Your task to perform on an android device: Clear all items from cart on costco. Add razer nari to the cart on costco, then select checkout. Image 0: 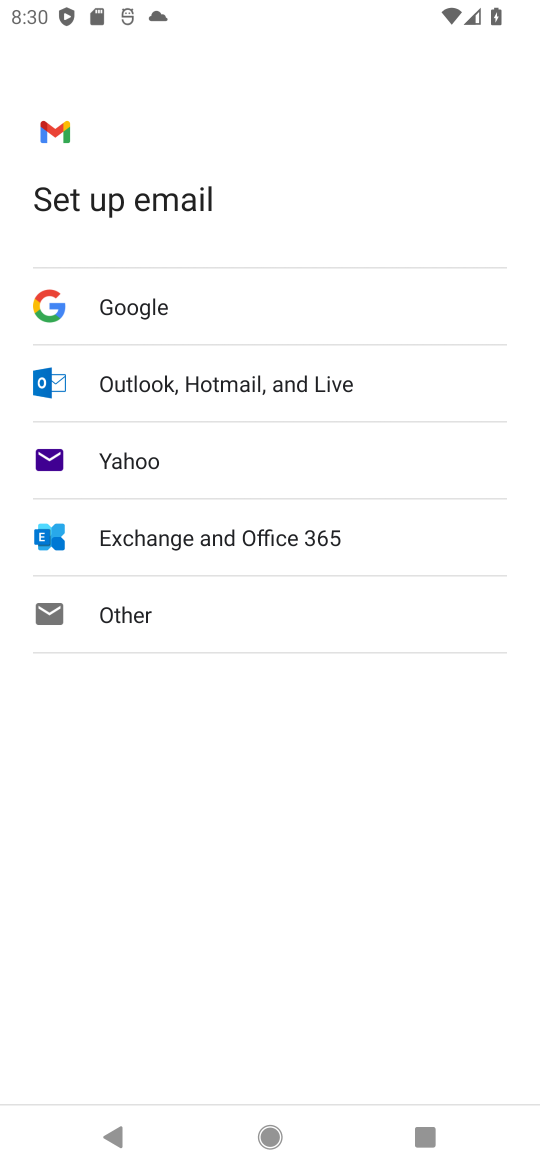
Step 0: press home button
Your task to perform on an android device: Clear all items from cart on costco. Add razer nari to the cart on costco, then select checkout. Image 1: 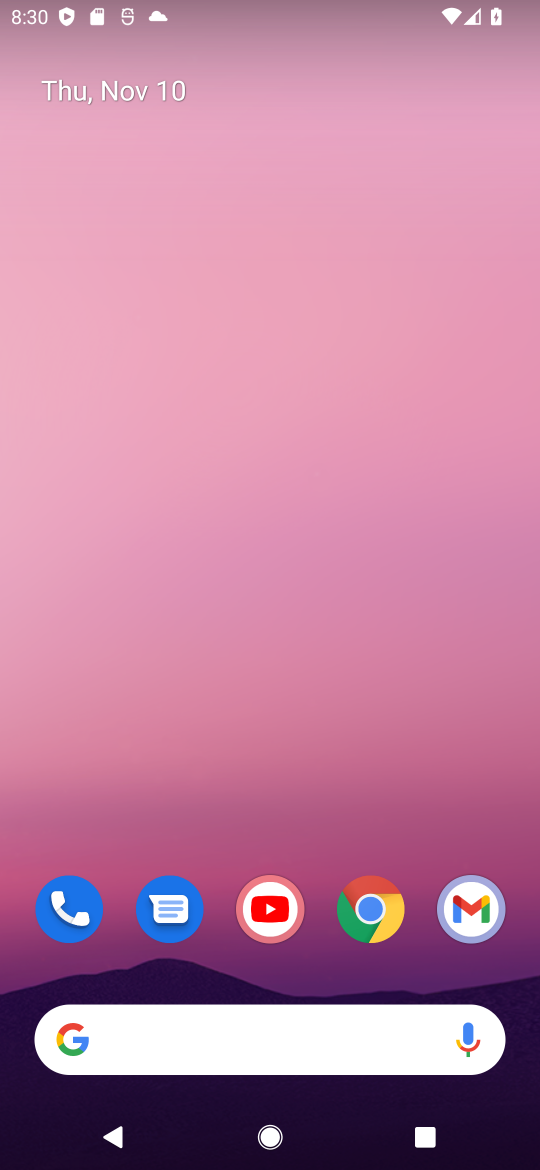
Step 1: drag from (231, 938) to (392, 262)
Your task to perform on an android device: Clear all items from cart on costco. Add razer nari to the cart on costco, then select checkout. Image 2: 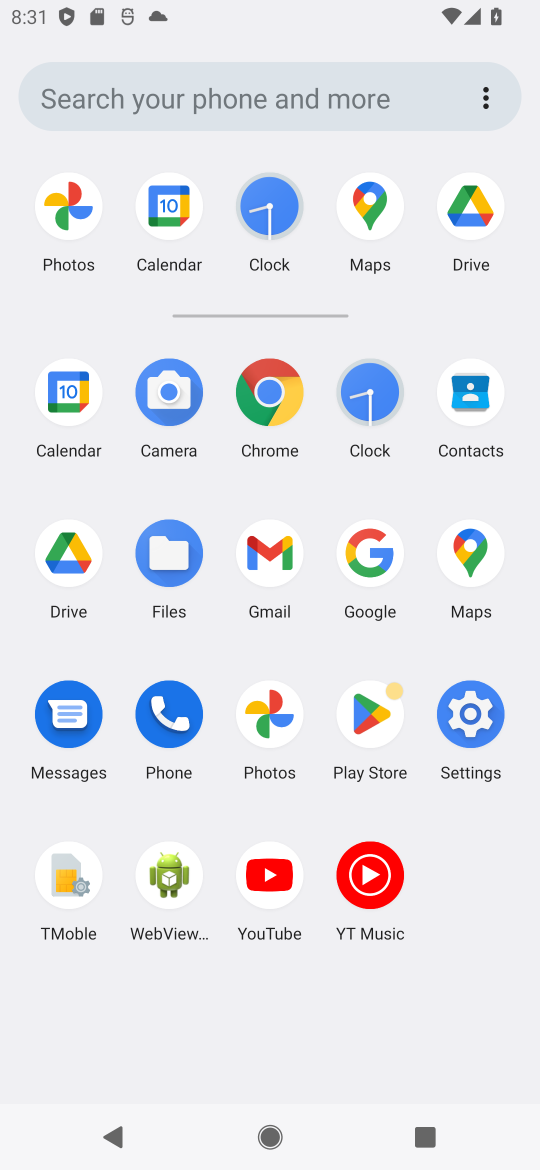
Step 2: click (376, 544)
Your task to perform on an android device: Clear all items from cart on costco. Add razer nari to the cart on costco, then select checkout. Image 3: 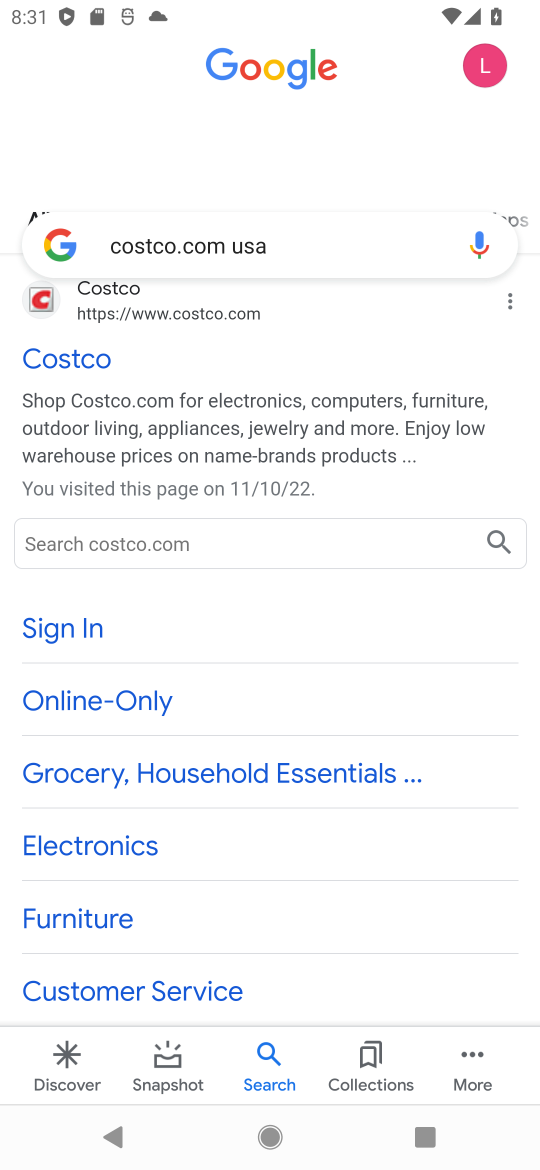
Step 3: click (48, 300)
Your task to perform on an android device: Clear all items from cart on costco. Add razer nari to the cart on costco, then select checkout. Image 4: 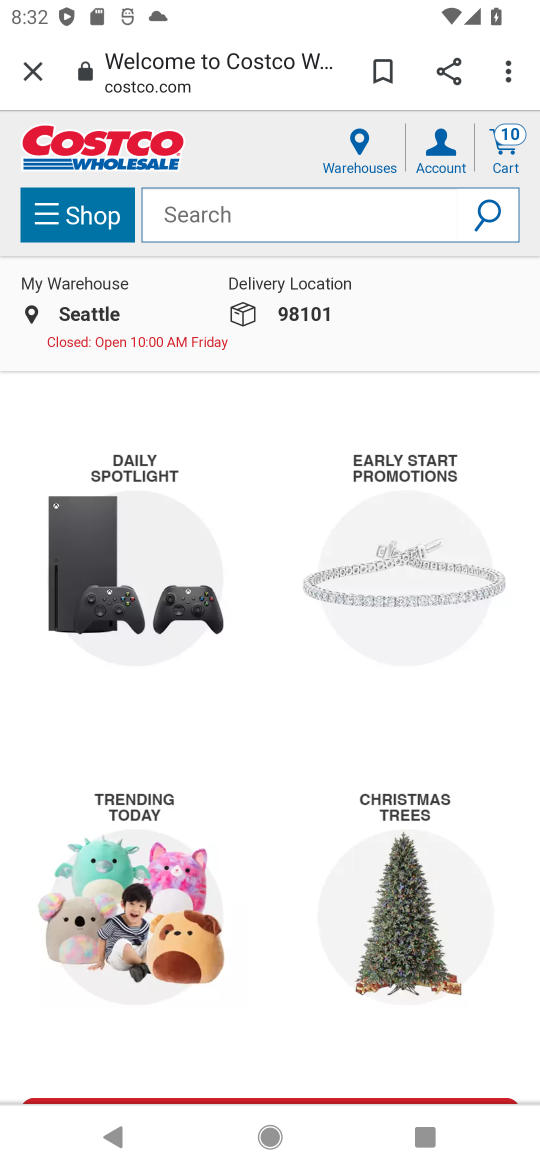
Step 4: click (255, 210)
Your task to perform on an android device: Clear all items from cart on costco. Add razer nari to the cart on costco, then select checkout. Image 5: 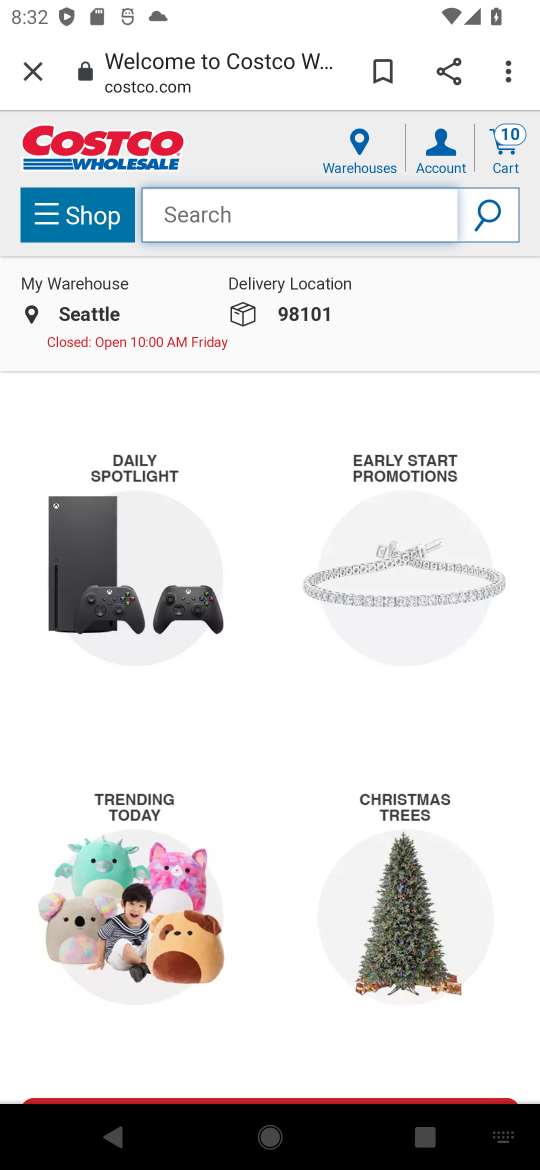
Step 5: type "razer nari "
Your task to perform on an android device: Clear all items from cart on costco. Add razer nari to the cart on costco, then select checkout. Image 6: 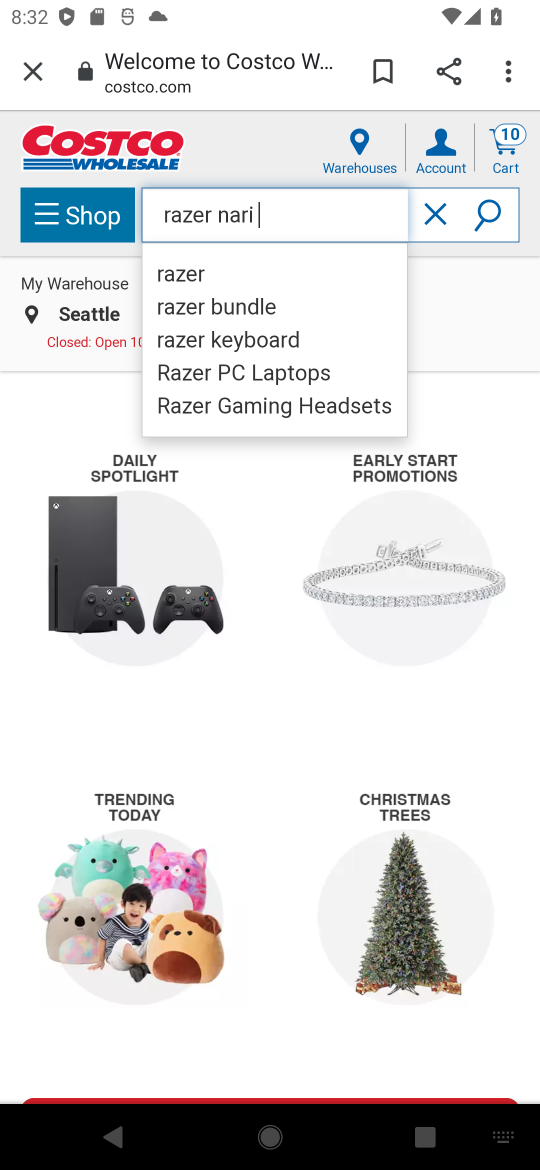
Step 6: click (493, 206)
Your task to perform on an android device: Clear all items from cart on costco. Add razer nari to the cart on costco, then select checkout. Image 7: 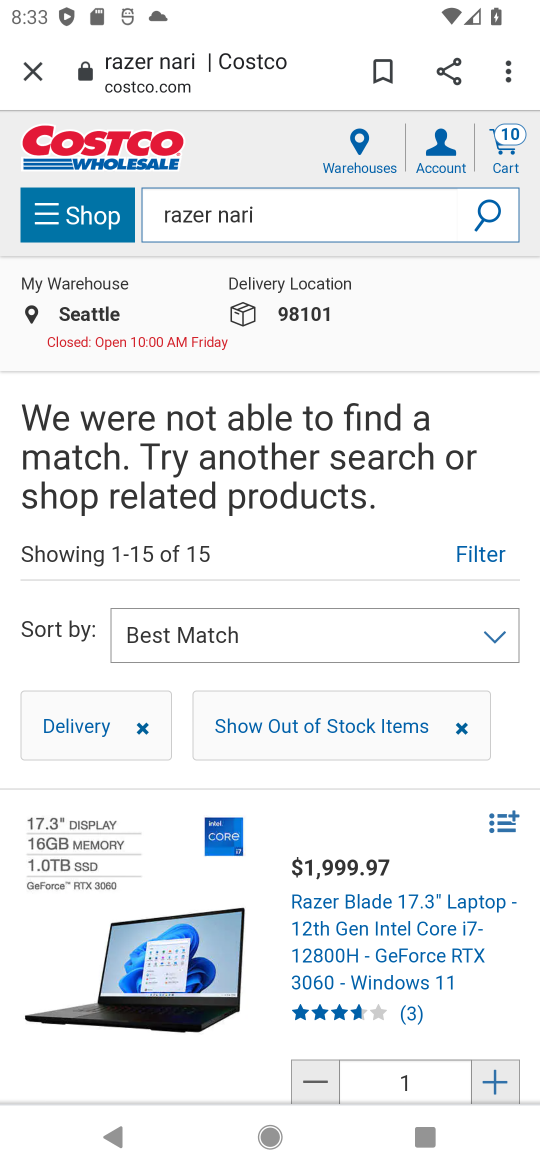
Step 7: drag from (361, 955) to (322, 398)
Your task to perform on an android device: Clear all items from cart on costco. Add razer nari to the cart on costco, then select checkout. Image 8: 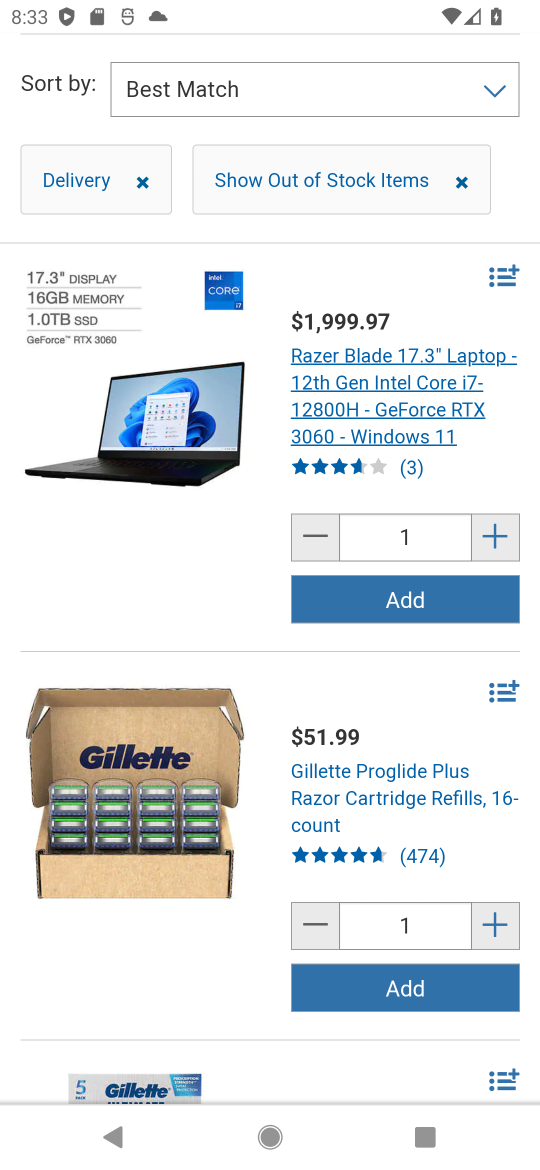
Step 8: click (361, 595)
Your task to perform on an android device: Clear all items from cart on costco. Add razer nari to the cart on costco, then select checkout. Image 9: 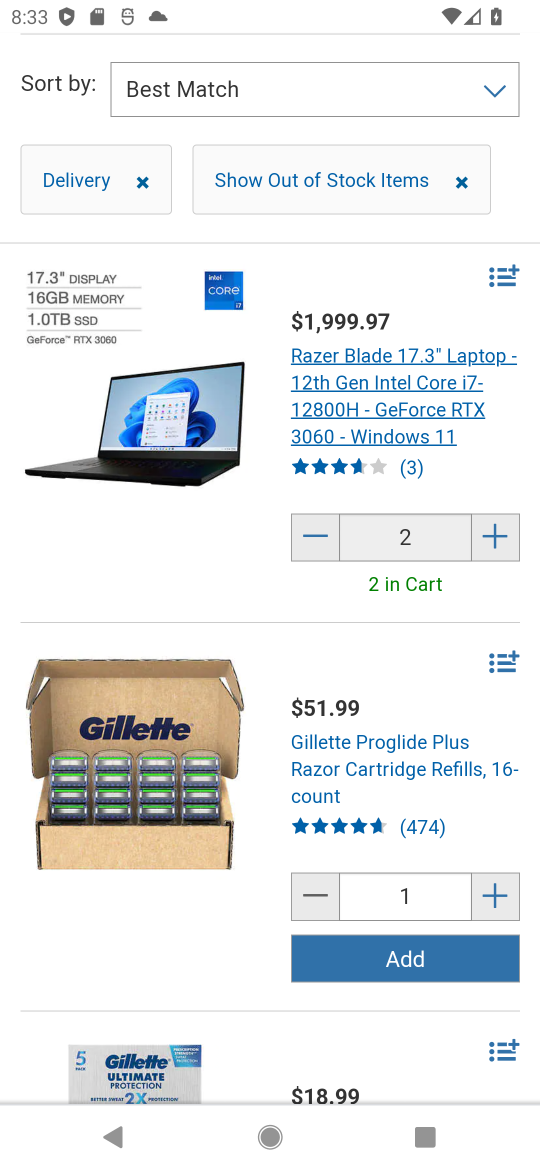
Step 9: task complete